Your task to perform on an android device: make emails show in primary in the gmail app Image 0: 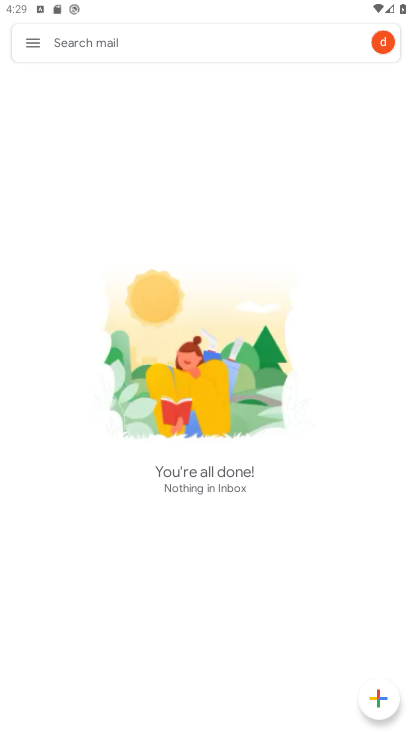
Step 0: press home button
Your task to perform on an android device: make emails show in primary in the gmail app Image 1: 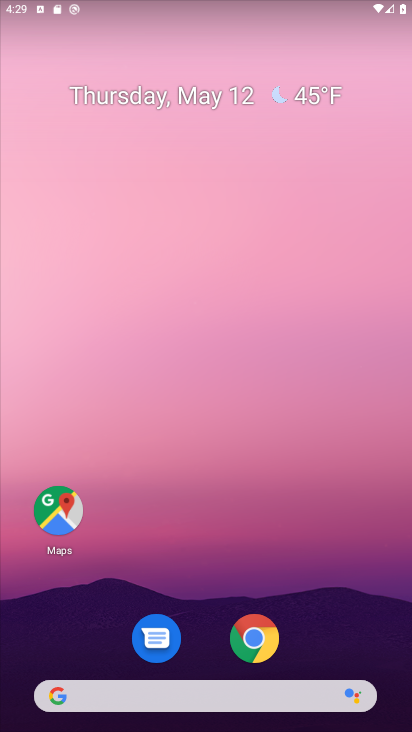
Step 1: drag from (363, 584) to (231, 101)
Your task to perform on an android device: make emails show in primary in the gmail app Image 2: 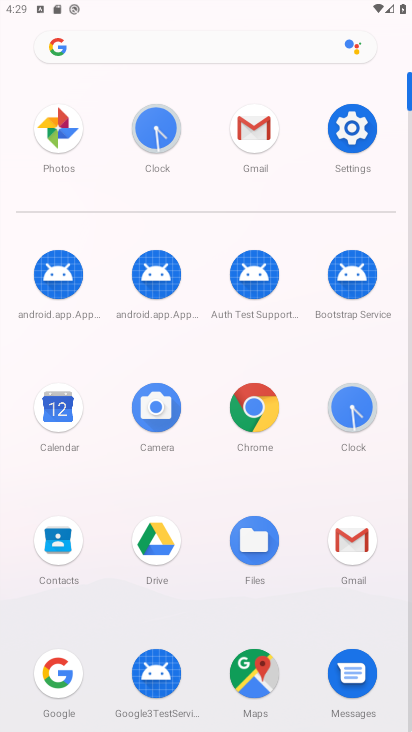
Step 2: click (260, 123)
Your task to perform on an android device: make emails show in primary in the gmail app Image 3: 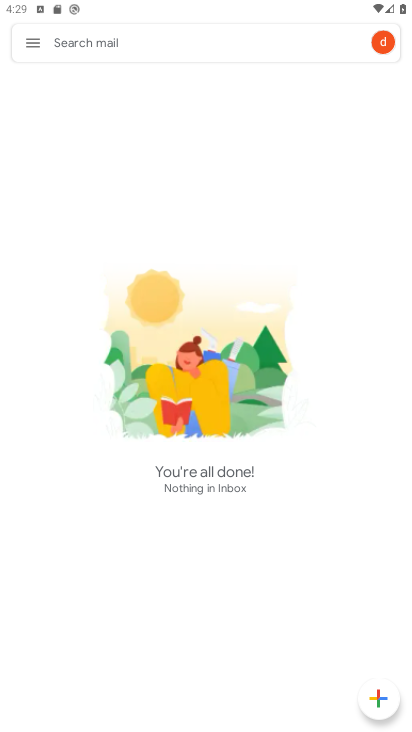
Step 3: click (31, 38)
Your task to perform on an android device: make emails show in primary in the gmail app Image 4: 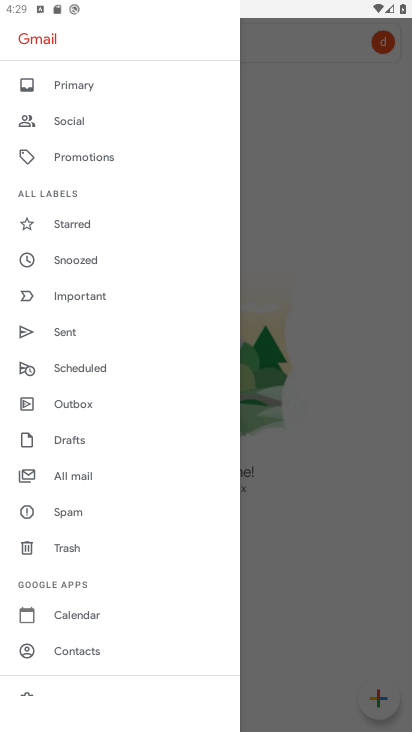
Step 4: click (77, 82)
Your task to perform on an android device: make emails show in primary in the gmail app Image 5: 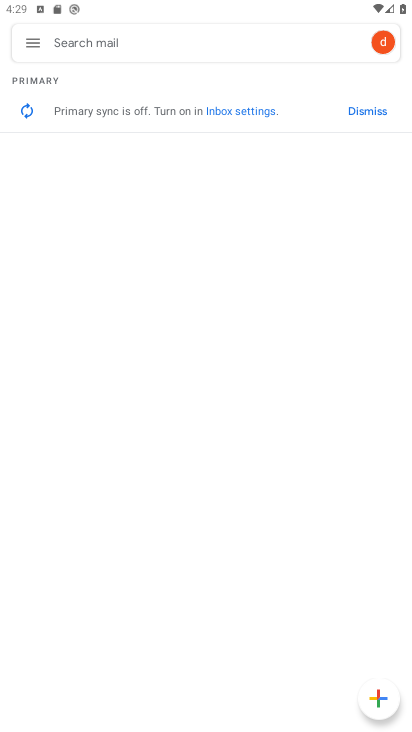
Step 5: task complete